Your task to perform on an android device: Open settings Image 0: 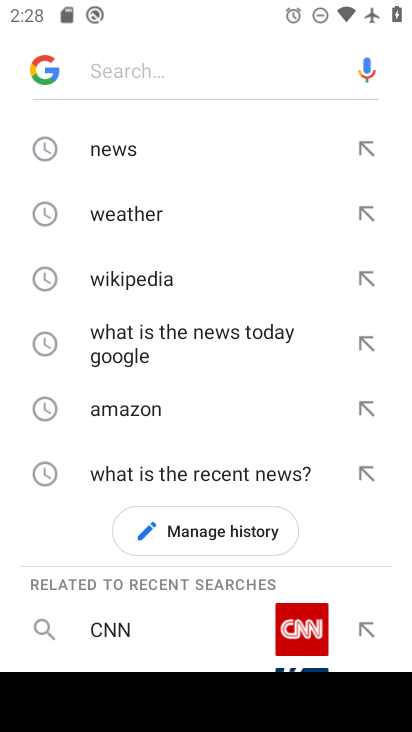
Step 0: press home button
Your task to perform on an android device: Open settings Image 1: 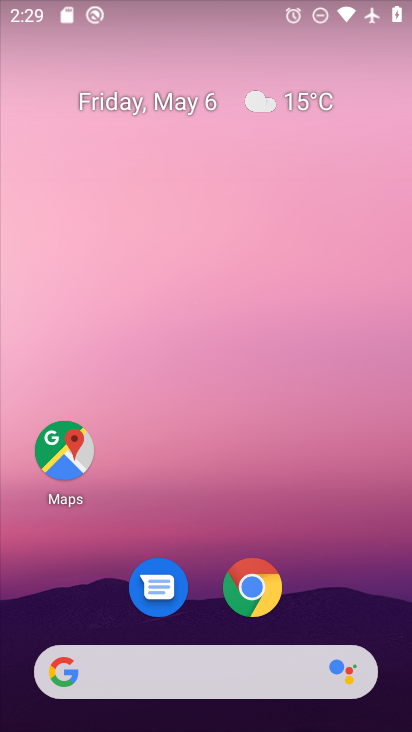
Step 1: drag from (314, 455) to (296, 33)
Your task to perform on an android device: Open settings Image 2: 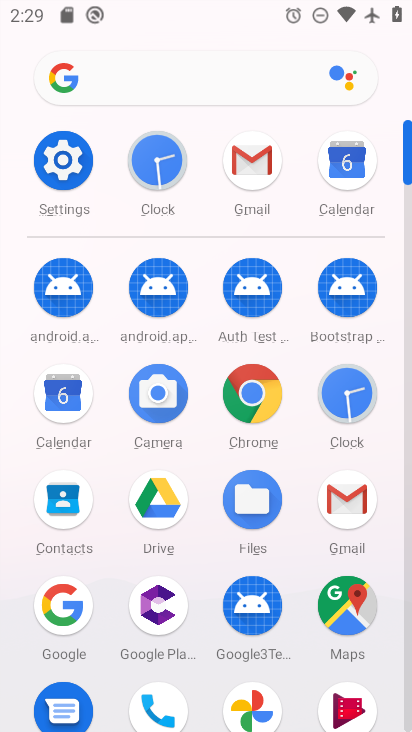
Step 2: click (62, 166)
Your task to perform on an android device: Open settings Image 3: 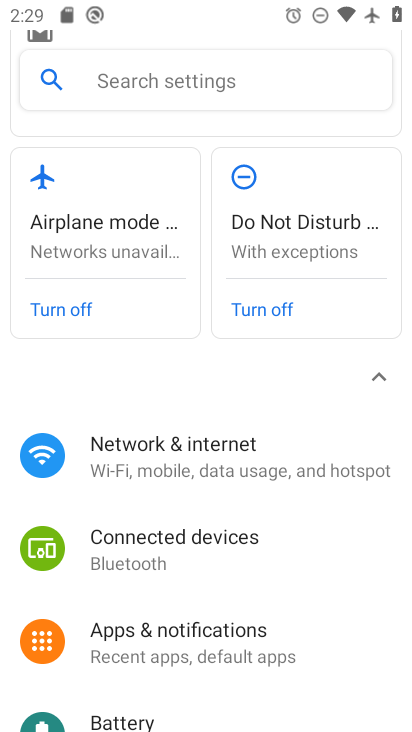
Step 3: task complete